Your task to perform on an android device: Set the phone to "Do not disturb". Image 0: 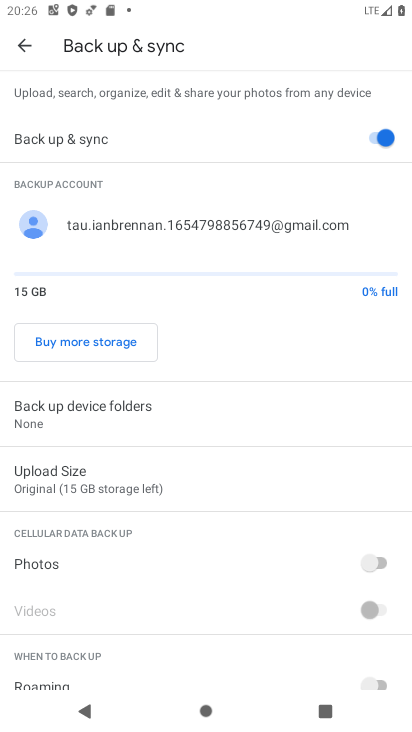
Step 0: drag from (91, 21) to (161, 456)
Your task to perform on an android device: Set the phone to "Do not disturb". Image 1: 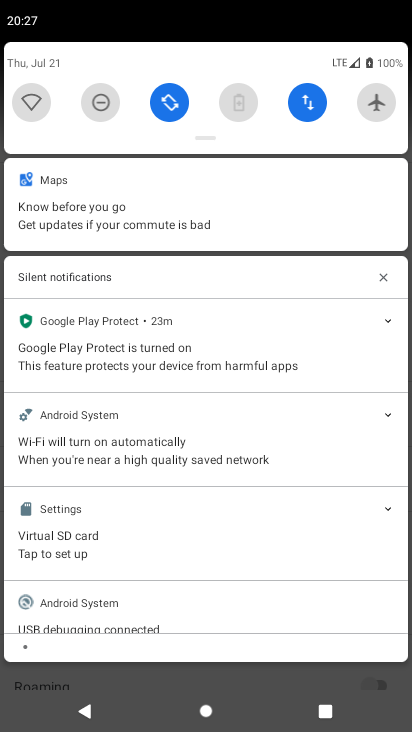
Step 1: click (101, 106)
Your task to perform on an android device: Set the phone to "Do not disturb". Image 2: 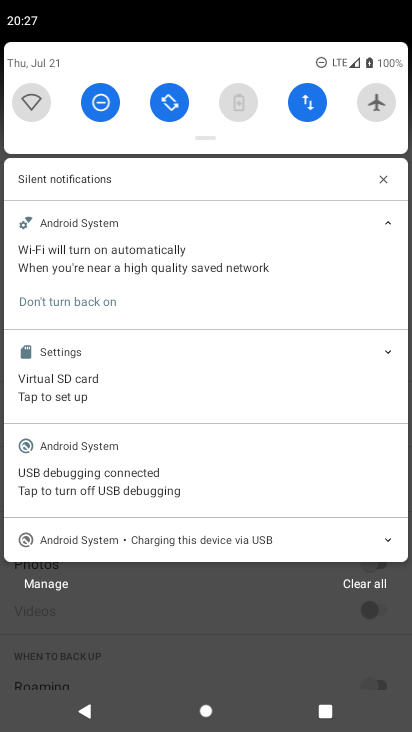
Step 2: task complete